Your task to perform on an android device: Is it going to rain today? Image 0: 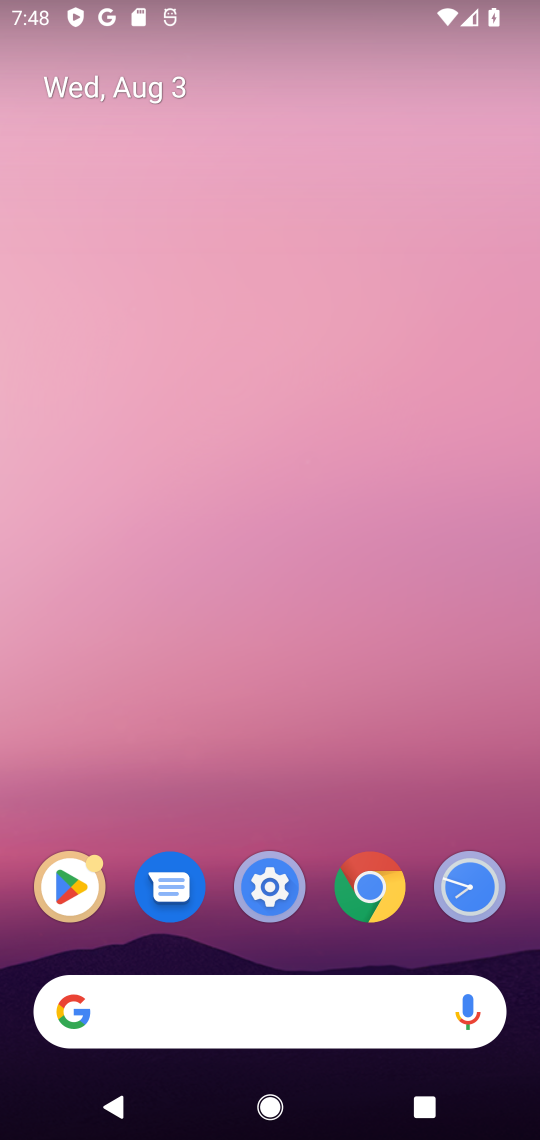
Step 0: click (304, 1005)
Your task to perform on an android device: Is it going to rain today? Image 1: 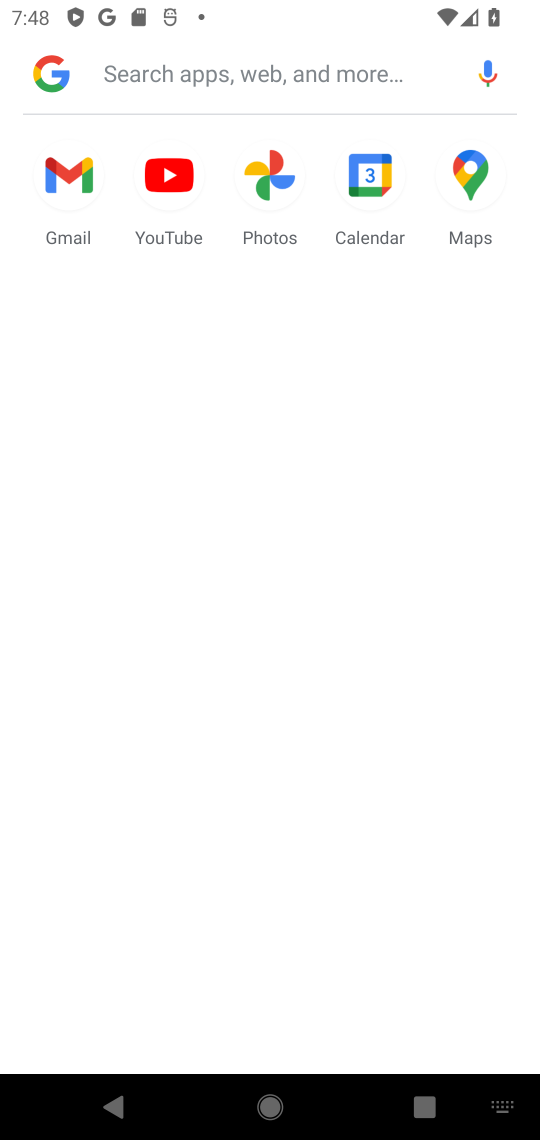
Step 1: type "is it going to rain today"
Your task to perform on an android device: Is it going to rain today? Image 2: 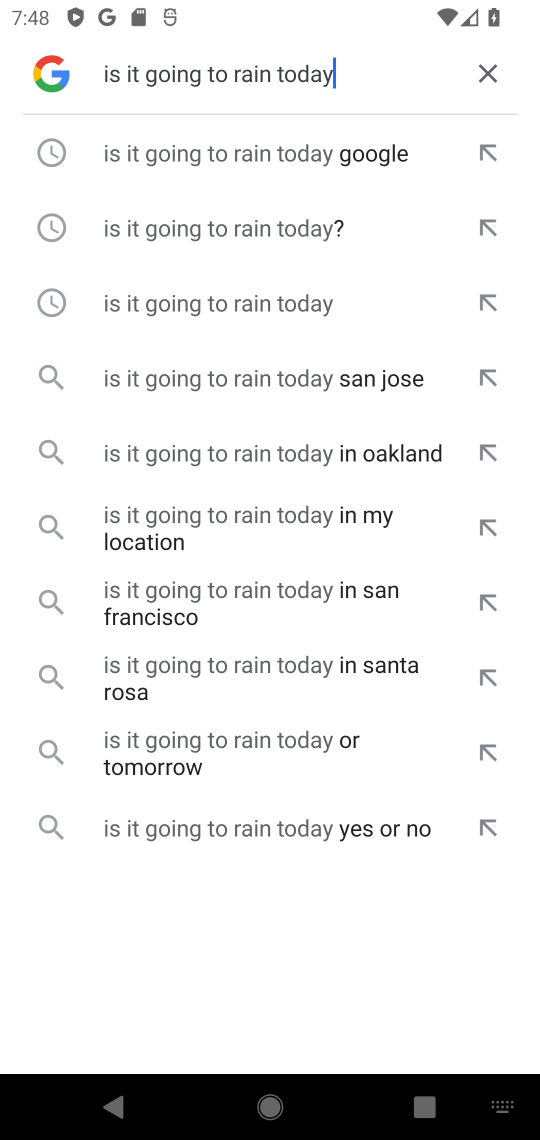
Step 2: click (340, 219)
Your task to perform on an android device: Is it going to rain today? Image 3: 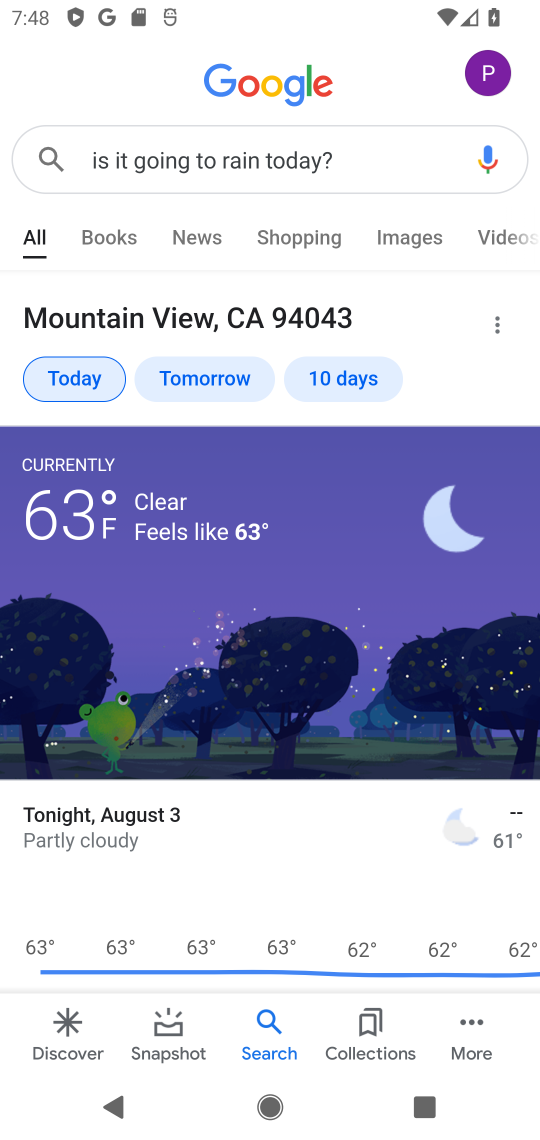
Step 3: task complete